Your task to perform on an android device: Toggle the flashlight Image 0: 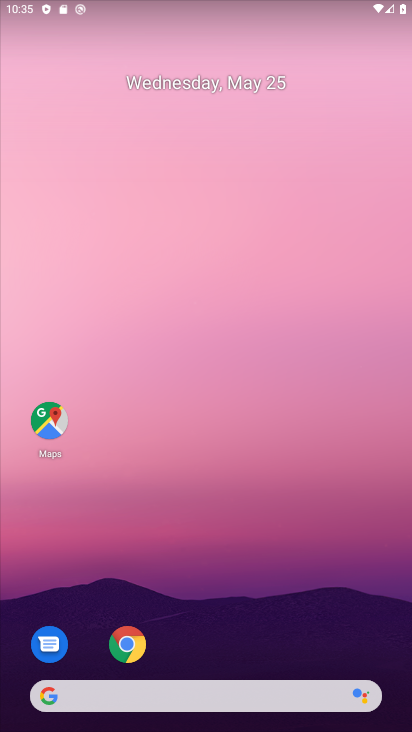
Step 0: drag from (370, 7) to (280, 634)
Your task to perform on an android device: Toggle the flashlight Image 1: 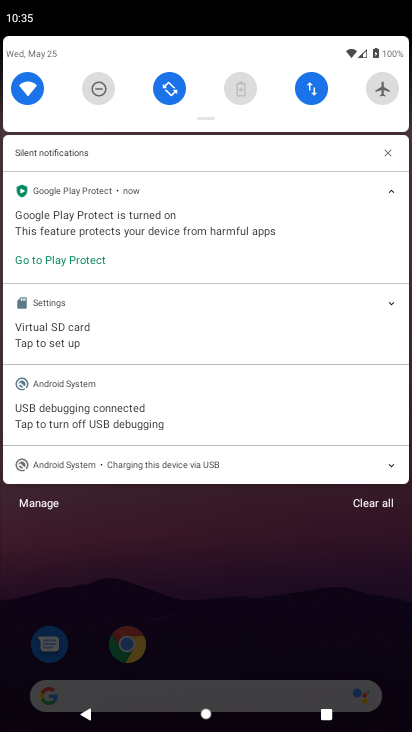
Step 1: task complete